Your task to perform on an android device: turn off priority inbox in the gmail app Image 0: 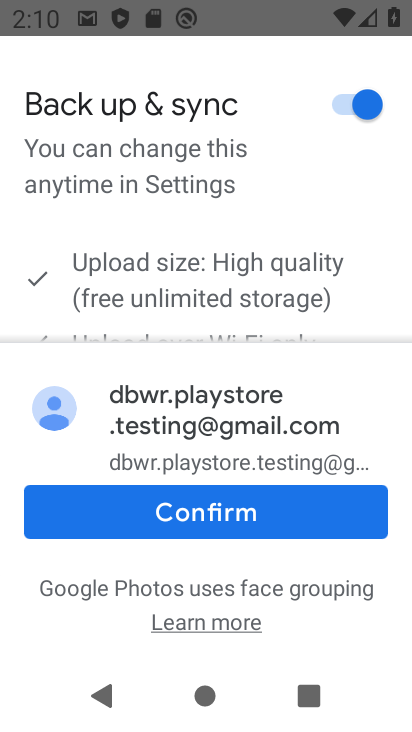
Step 0: press home button
Your task to perform on an android device: turn off priority inbox in the gmail app Image 1: 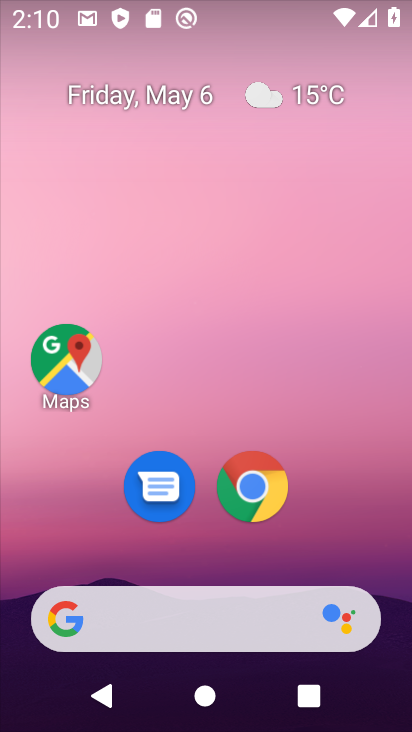
Step 1: drag from (342, 529) to (258, 93)
Your task to perform on an android device: turn off priority inbox in the gmail app Image 2: 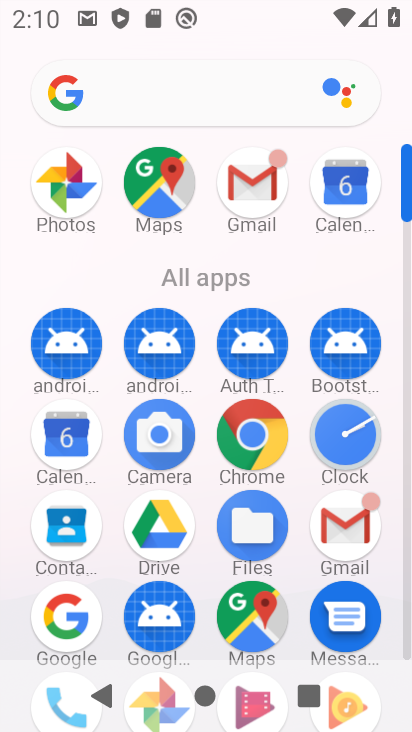
Step 2: click (253, 175)
Your task to perform on an android device: turn off priority inbox in the gmail app Image 3: 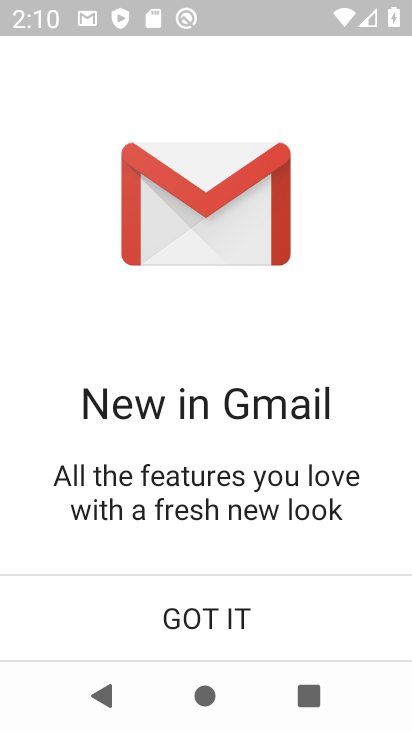
Step 3: click (196, 615)
Your task to perform on an android device: turn off priority inbox in the gmail app Image 4: 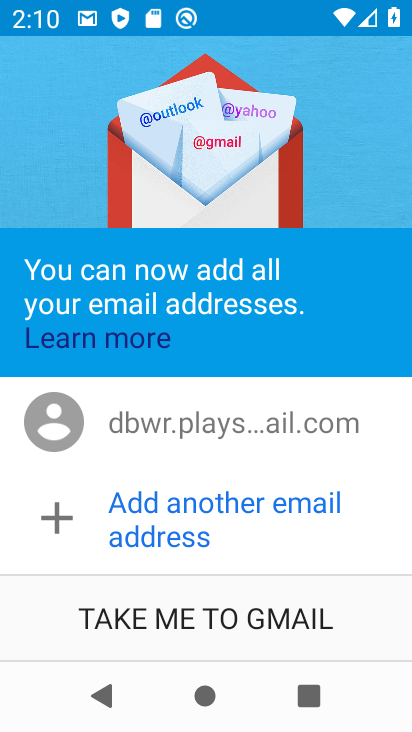
Step 4: click (196, 615)
Your task to perform on an android device: turn off priority inbox in the gmail app Image 5: 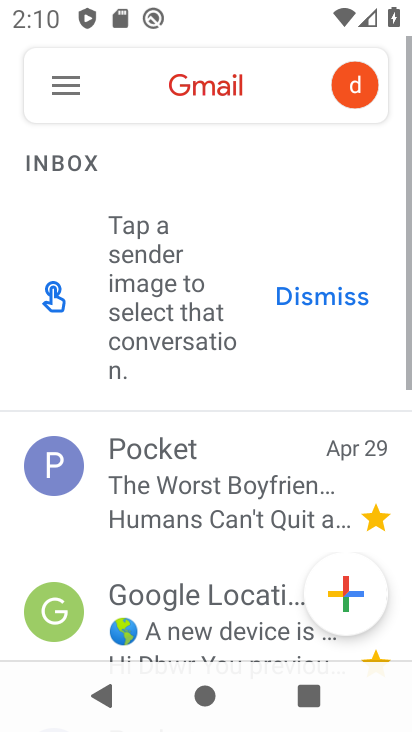
Step 5: click (64, 87)
Your task to perform on an android device: turn off priority inbox in the gmail app Image 6: 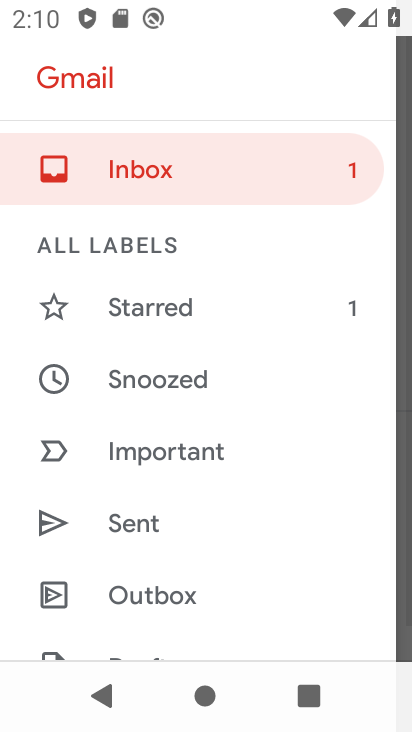
Step 6: drag from (214, 484) to (187, 163)
Your task to perform on an android device: turn off priority inbox in the gmail app Image 7: 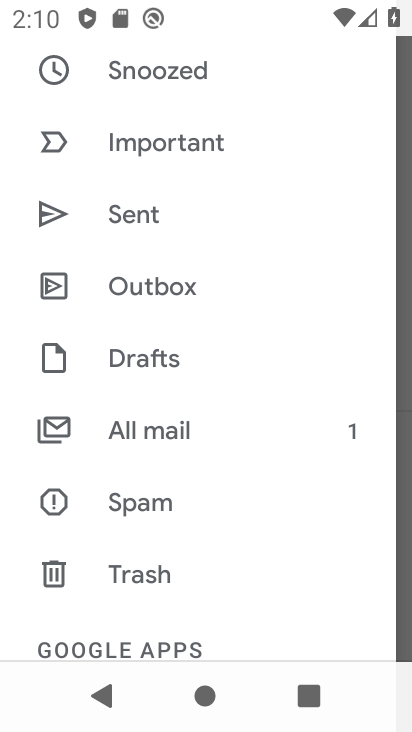
Step 7: drag from (214, 562) to (183, 196)
Your task to perform on an android device: turn off priority inbox in the gmail app Image 8: 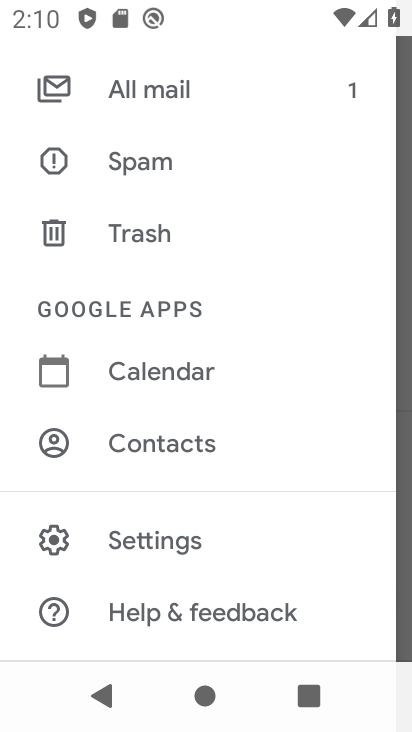
Step 8: click (159, 529)
Your task to perform on an android device: turn off priority inbox in the gmail app Image 9: 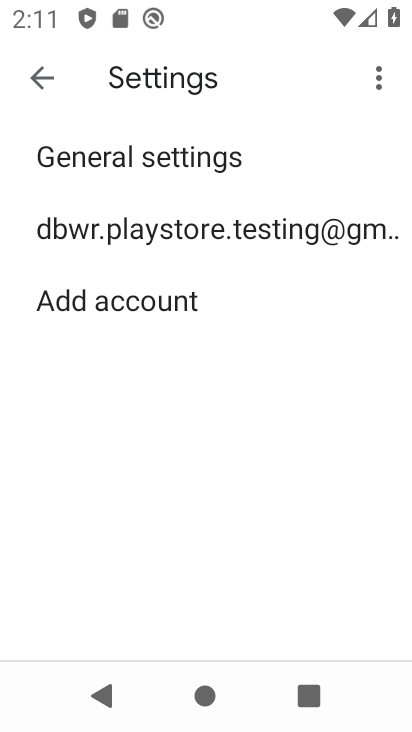
Step 9: click (141, 236)
Your task to perform on an android device: turn off priority inbox in the gmail app Image 10: 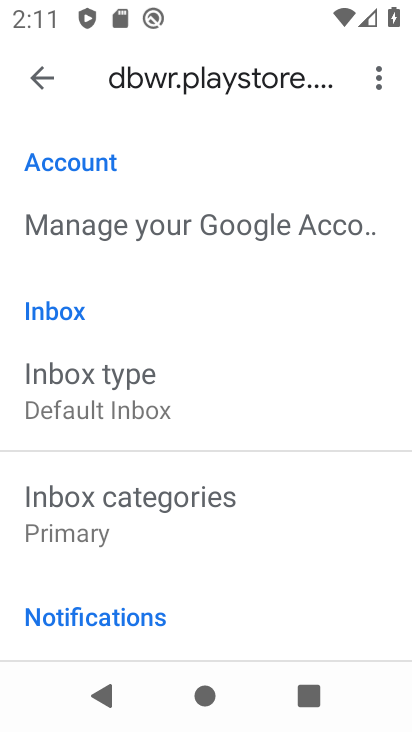
Step 10: click (101, 377)
Your task to perform on an android device: turn off priority inbox in the gmail app Image 11: 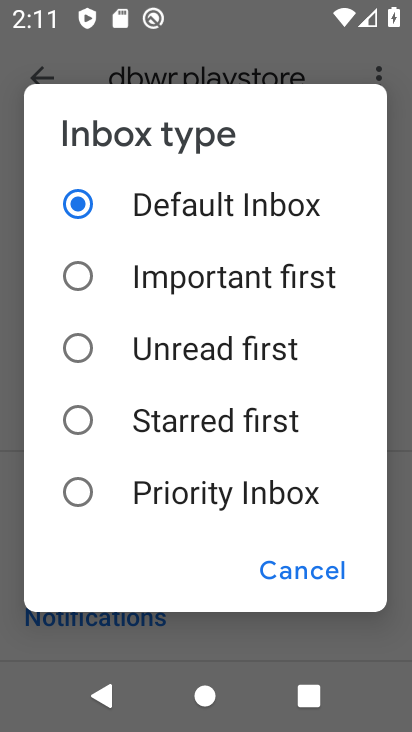
Step 11: task complete